Your task to perform on an android device: Search for the best vacuum on Walmart Image 0: 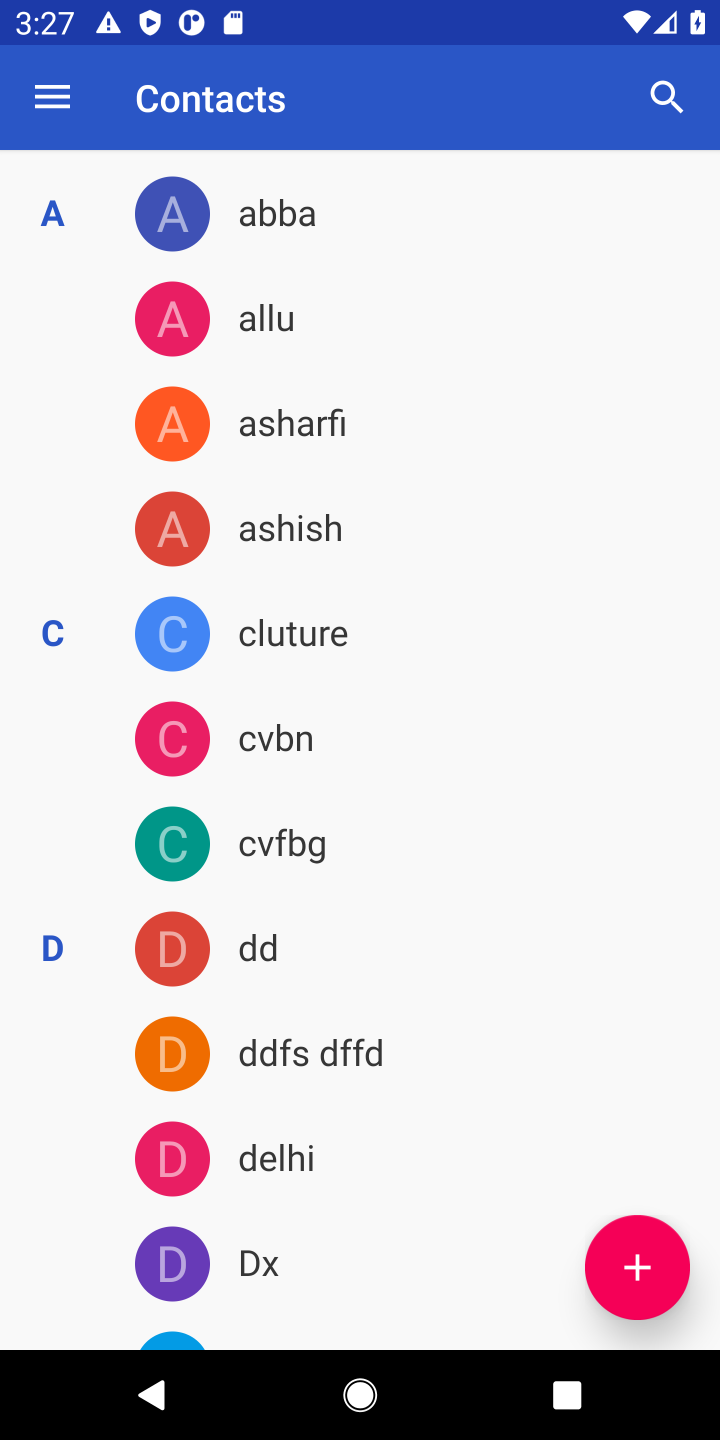
Step 0: press home button
Your task to perform on an android device: Search for the best vacuum on Walmart Image 1: 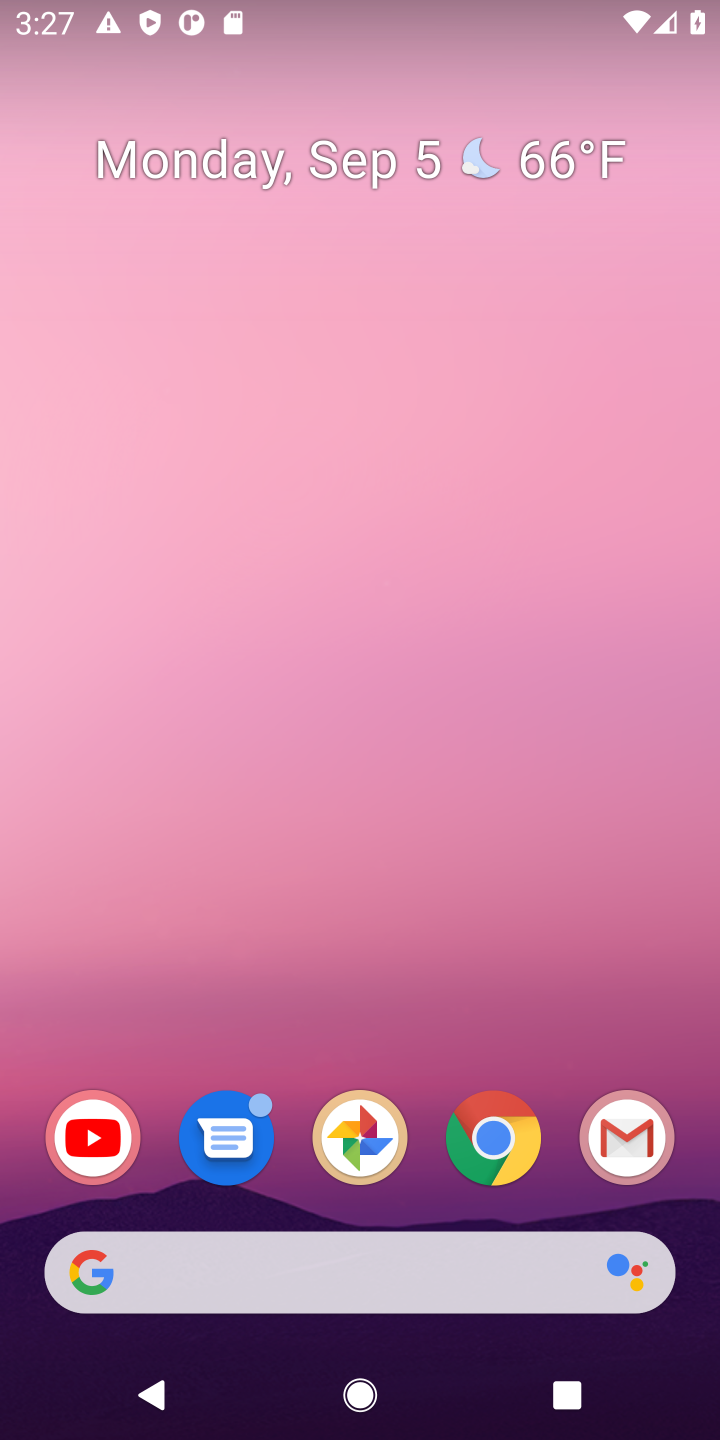
Step 1: click (499, 1144)
Your task to perform on an android device: Search for the best vacuum on Walmart Image 2: 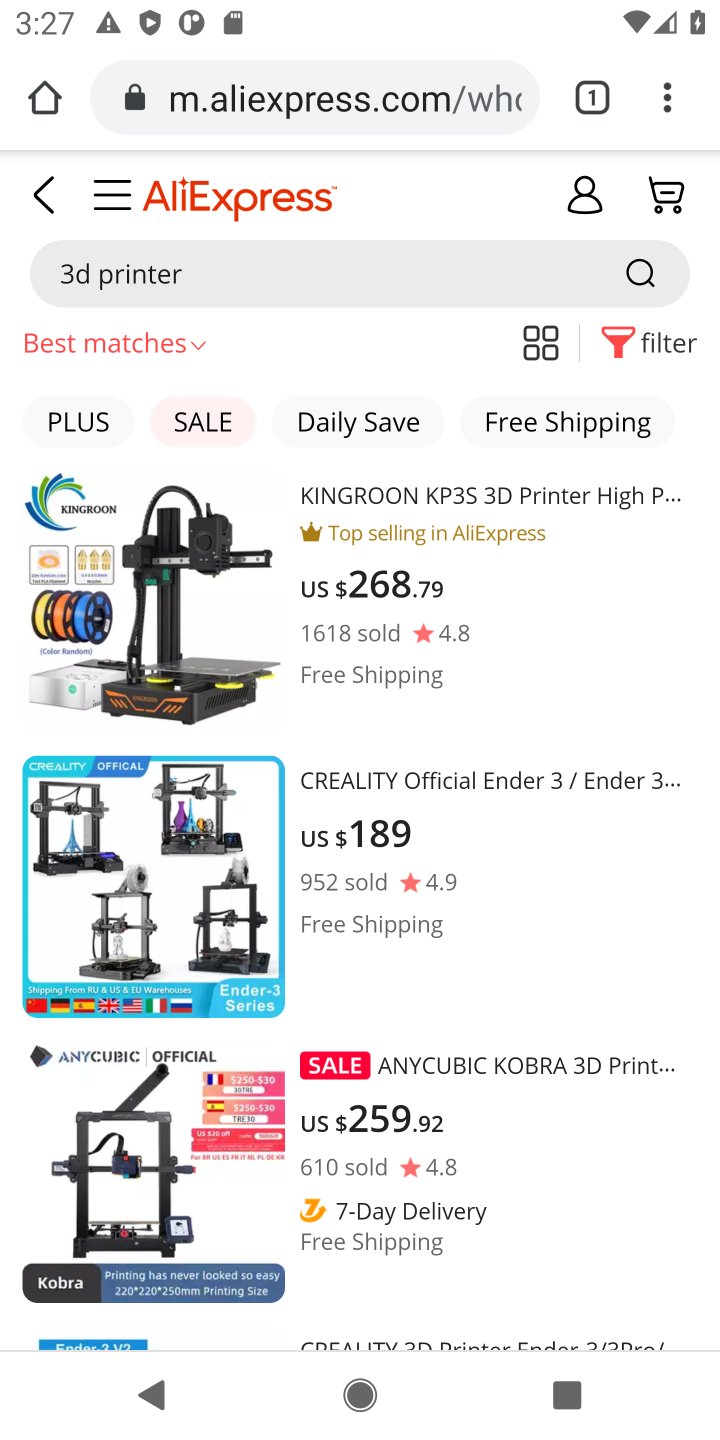
Step 2: click (371, 114)
Your task to perform on an android device: Search for the best vacuum on Walmart Image 3: 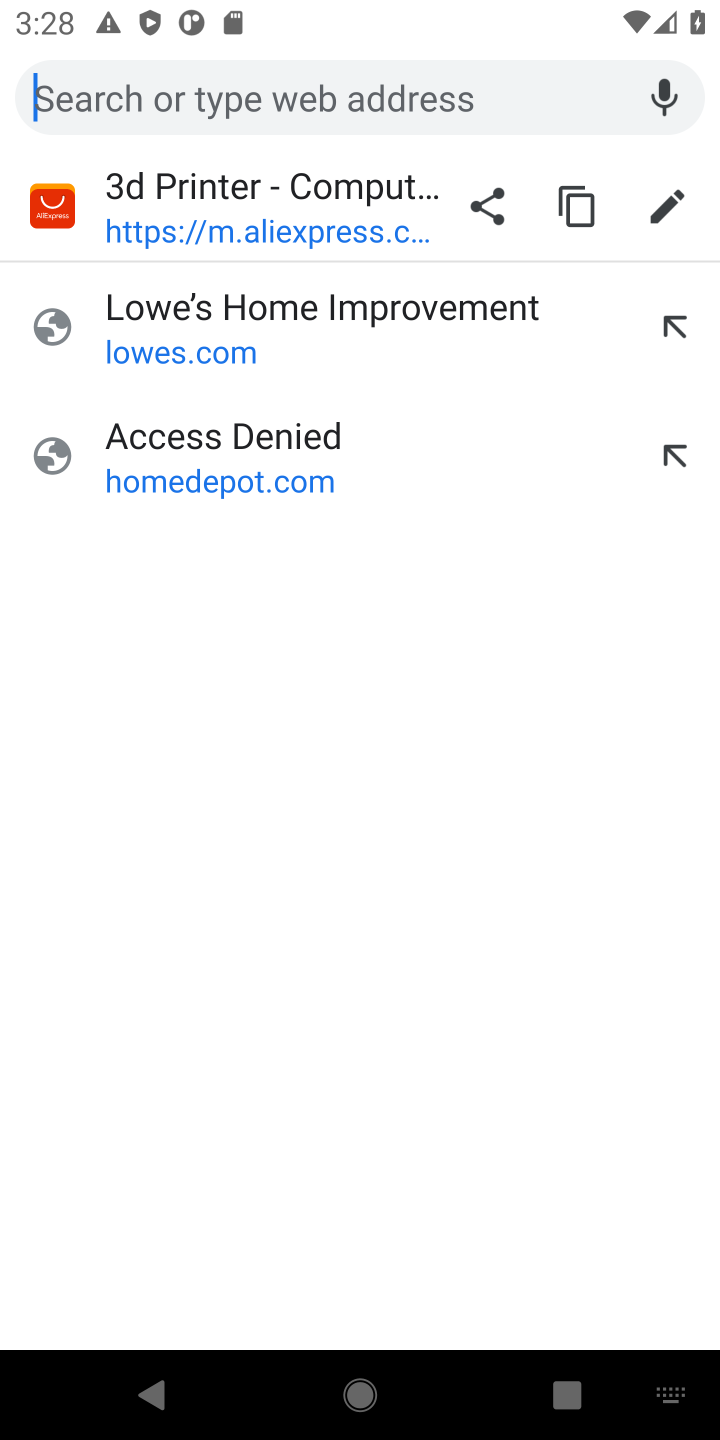
Step 3: type "walmart"
Your task to perform on an android device: Search for the best vacuum on Walmart Image 4: 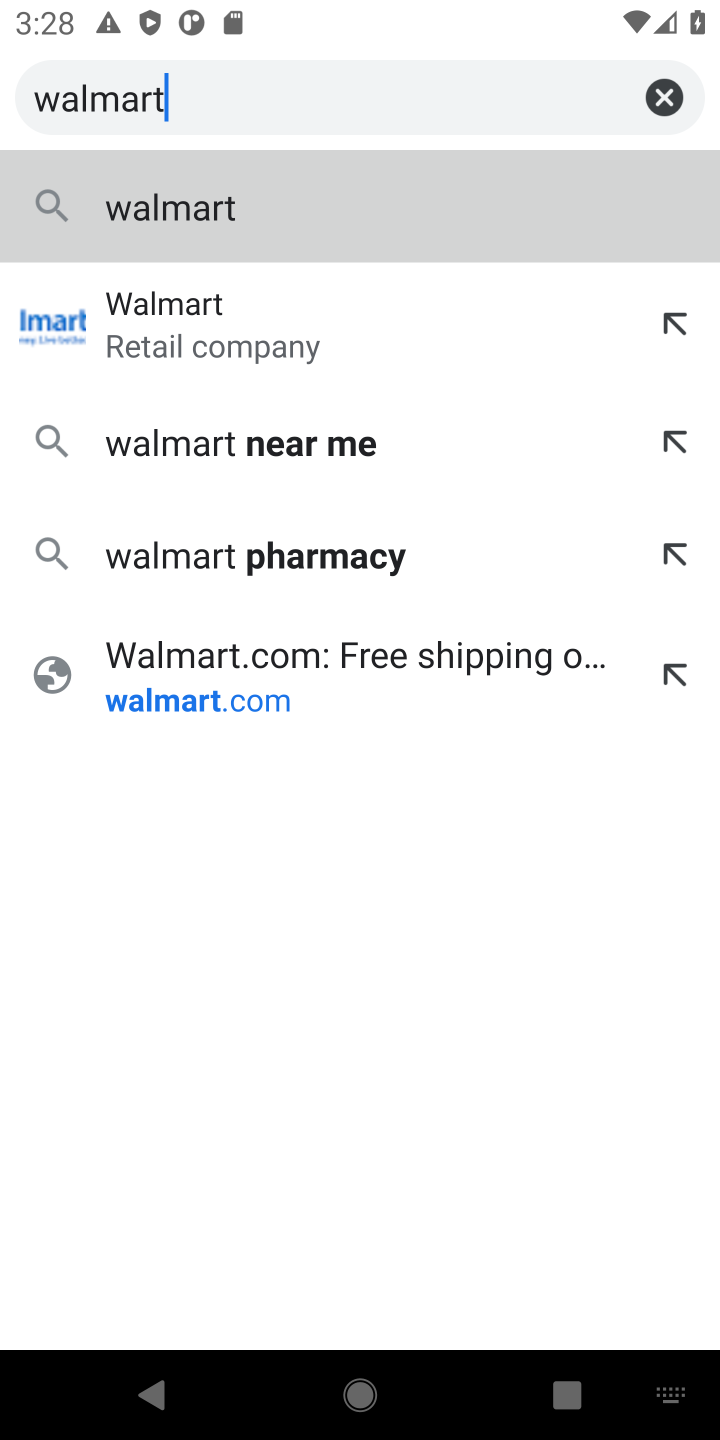
Step 4: click (344, 657)
Your task to perform on an android device: Search for the best vacuum on Walmart Image 5: 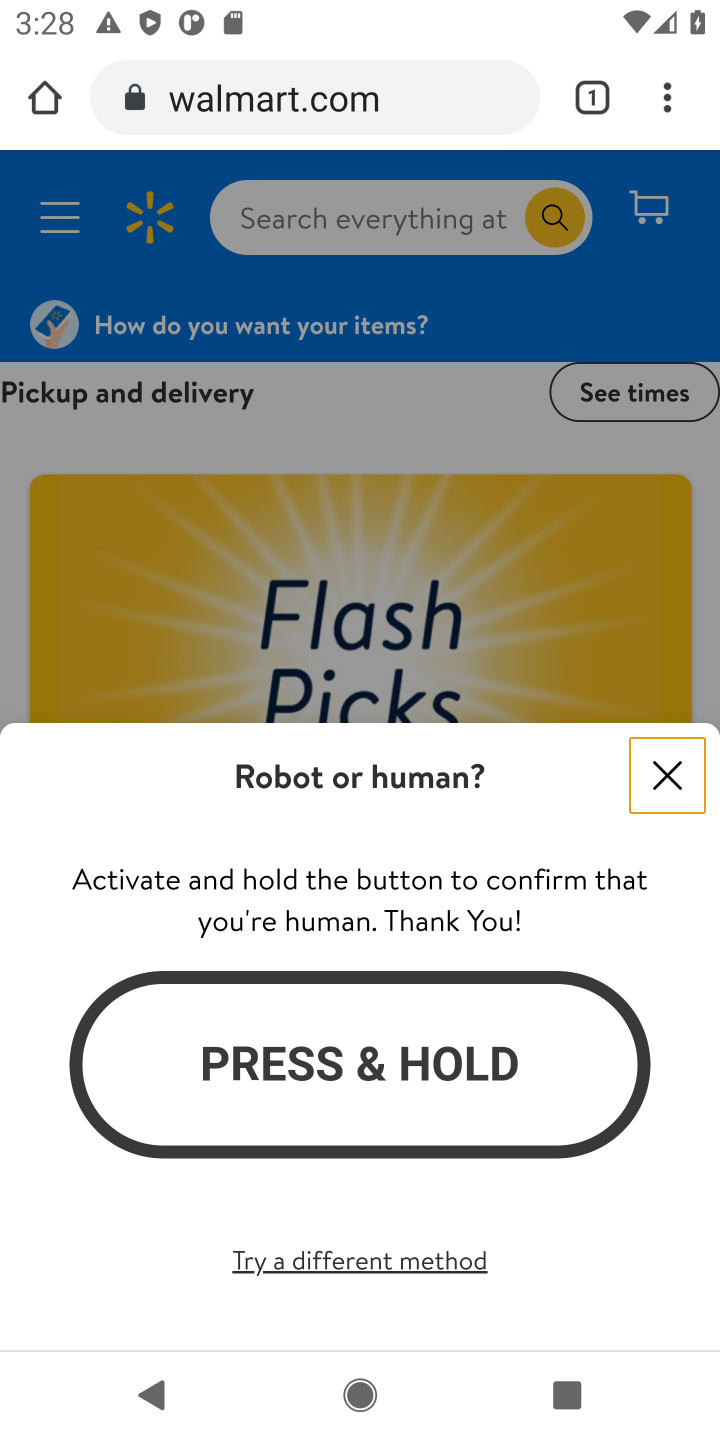
Step 5: click (683, 782)
Your task to perform on an android device: Search for the best vacuum on Walmart Image 6: 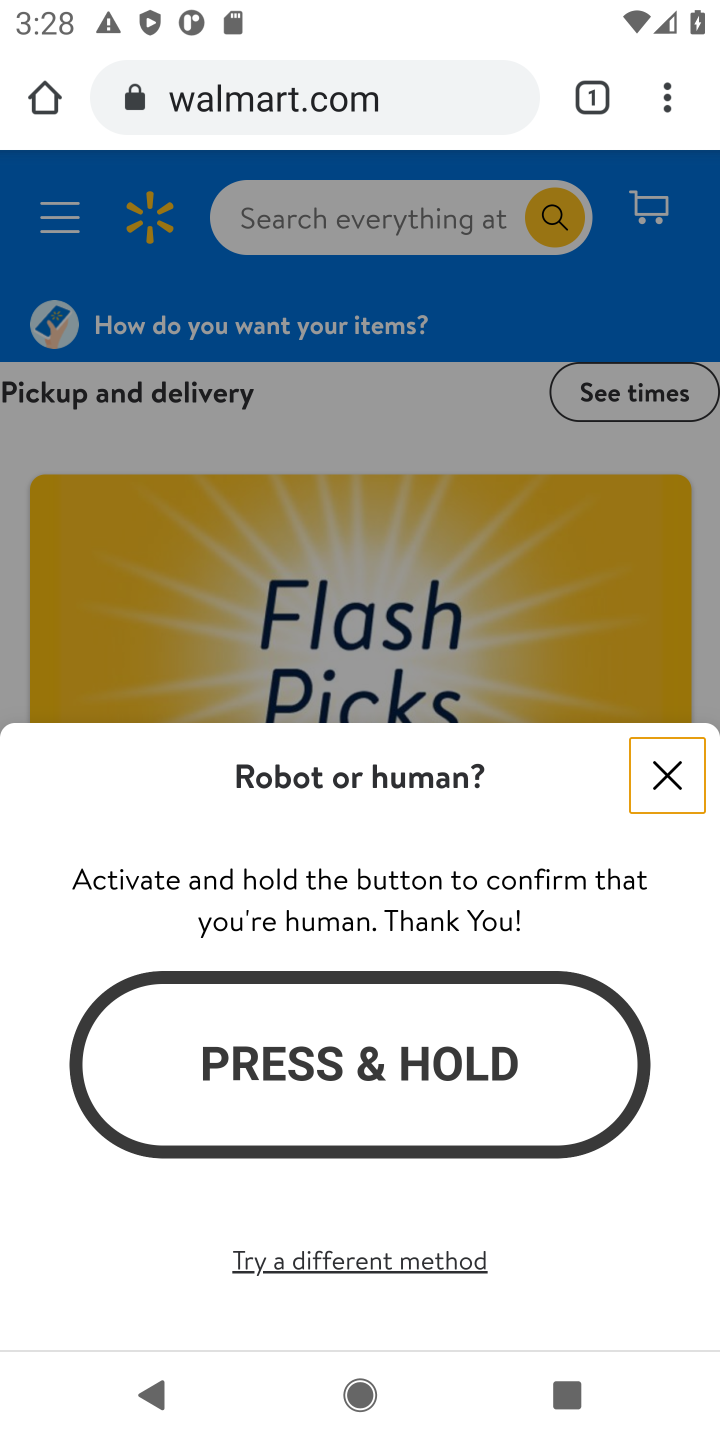
Step 6: click (666, 782)
Your task to perform on an android device: Search for the best vacuum on Walmart Image 7: 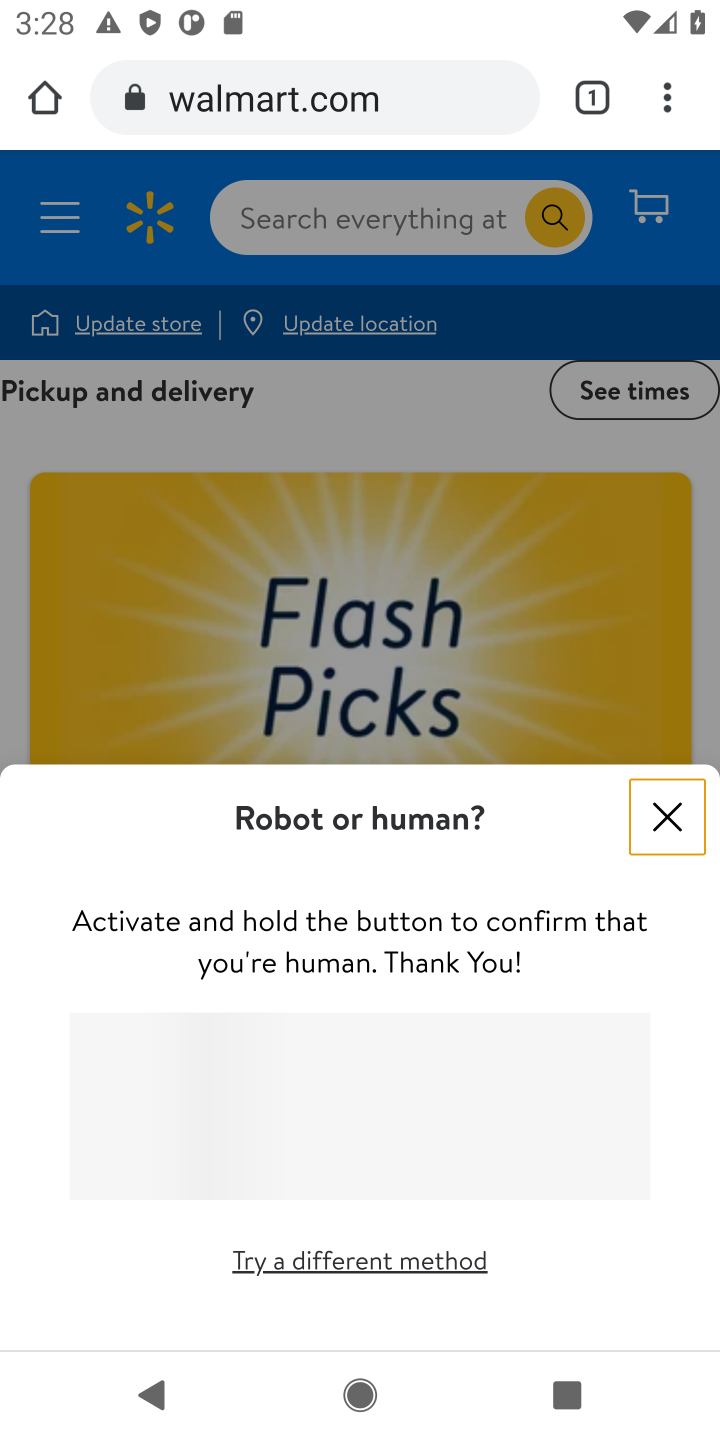
Step 7: click (368, 204)
Your task to perform on an android device: Search for the best vacuum on Walmart Image 8: 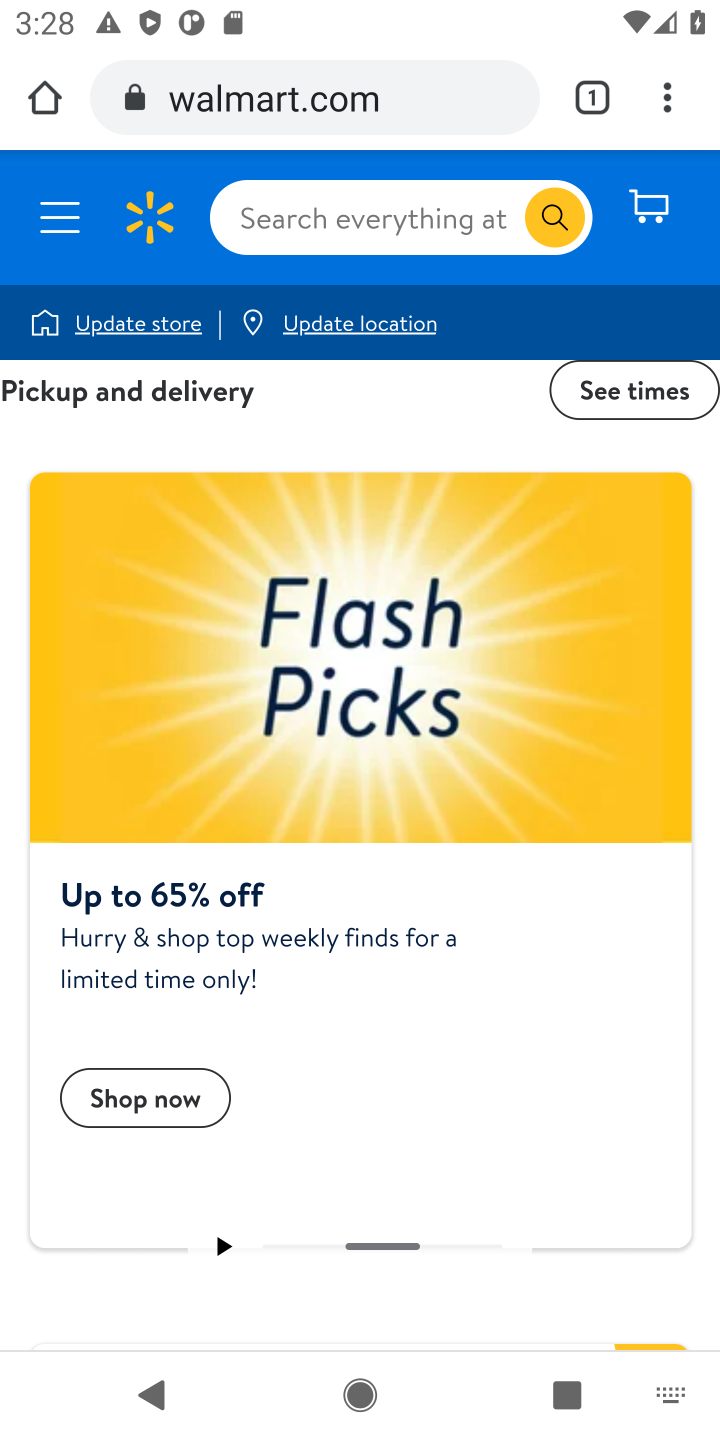
Step 8: click (368, 204)
Your task to perform on an android device: Search for the best vacuum on Walmart Image 9: 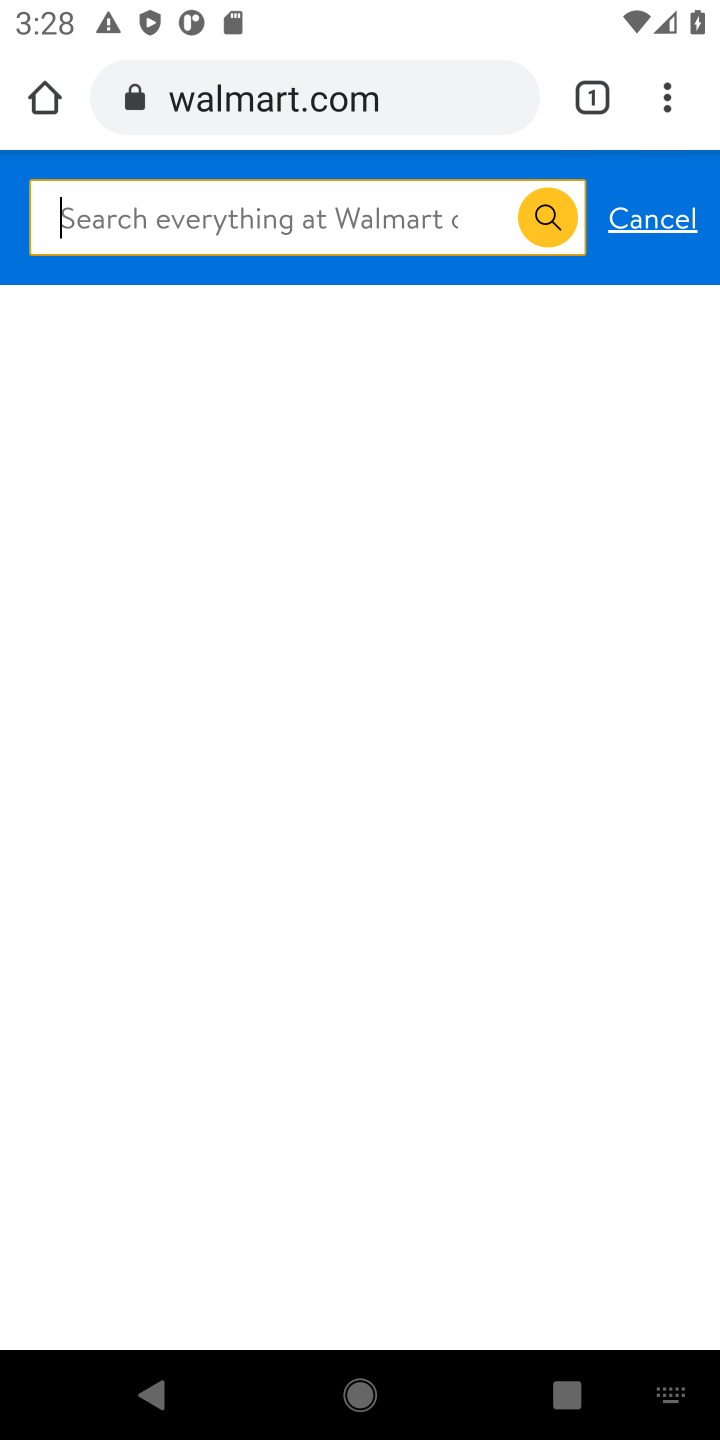
Step 9: type ""
Your task to perform on an android device: Search for the best vacuum on Walmart Image 10: 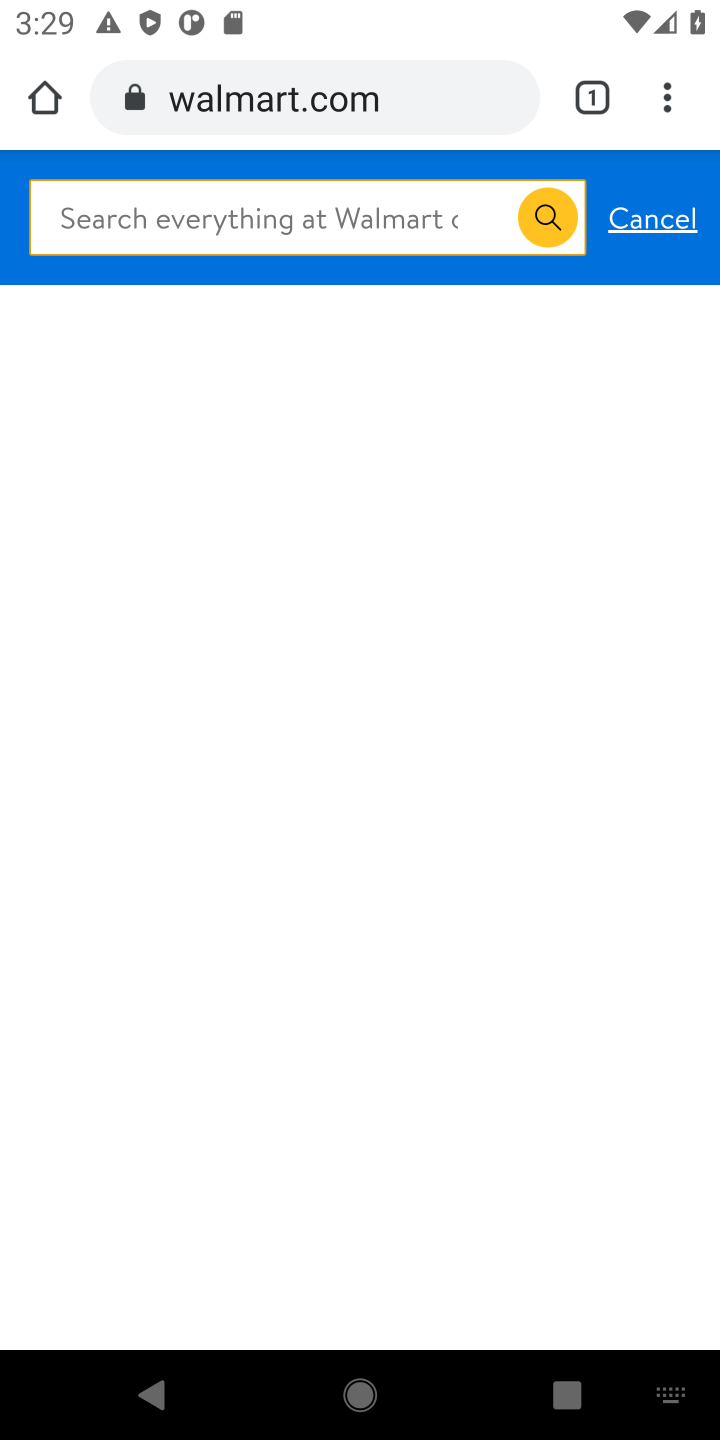
Step 10: type "best vacuum"
Your task to perform on an android device: Search for the best vacuum on Walmart Image 11: 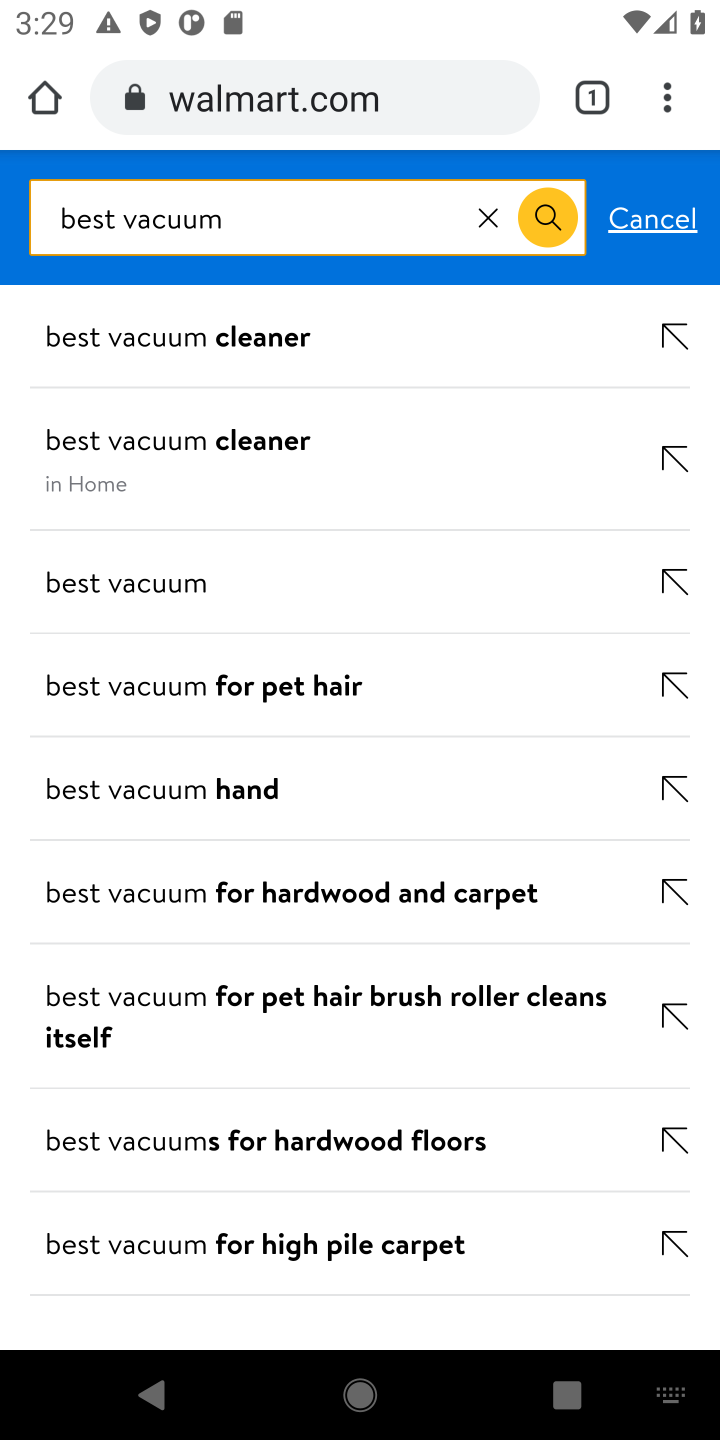
Step 11: click (542, 224)
Your task to perform on an android device: Search for the best vacuum on Walmart Image 12: 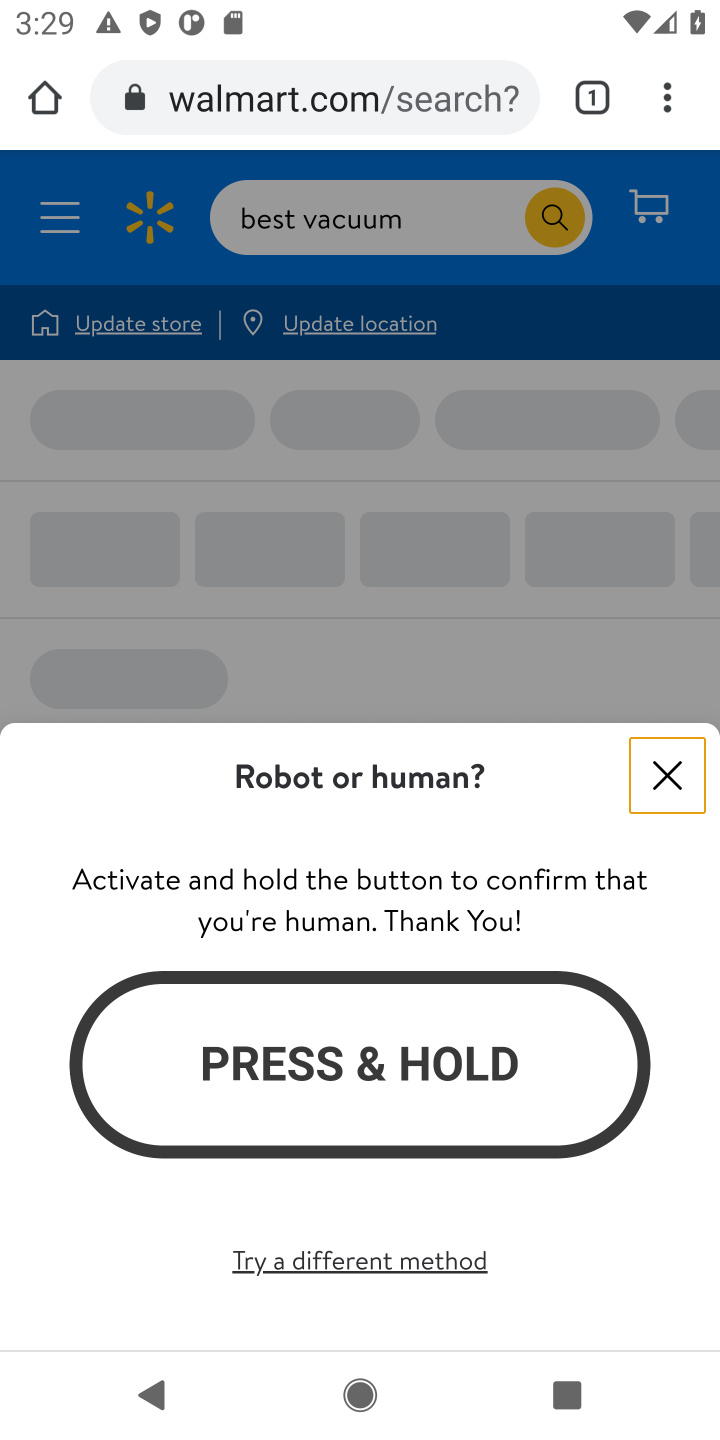
Step 12: click (668, 768)
Your task to perform on an android device: Search for the best vacuum on Walmart Image 13: 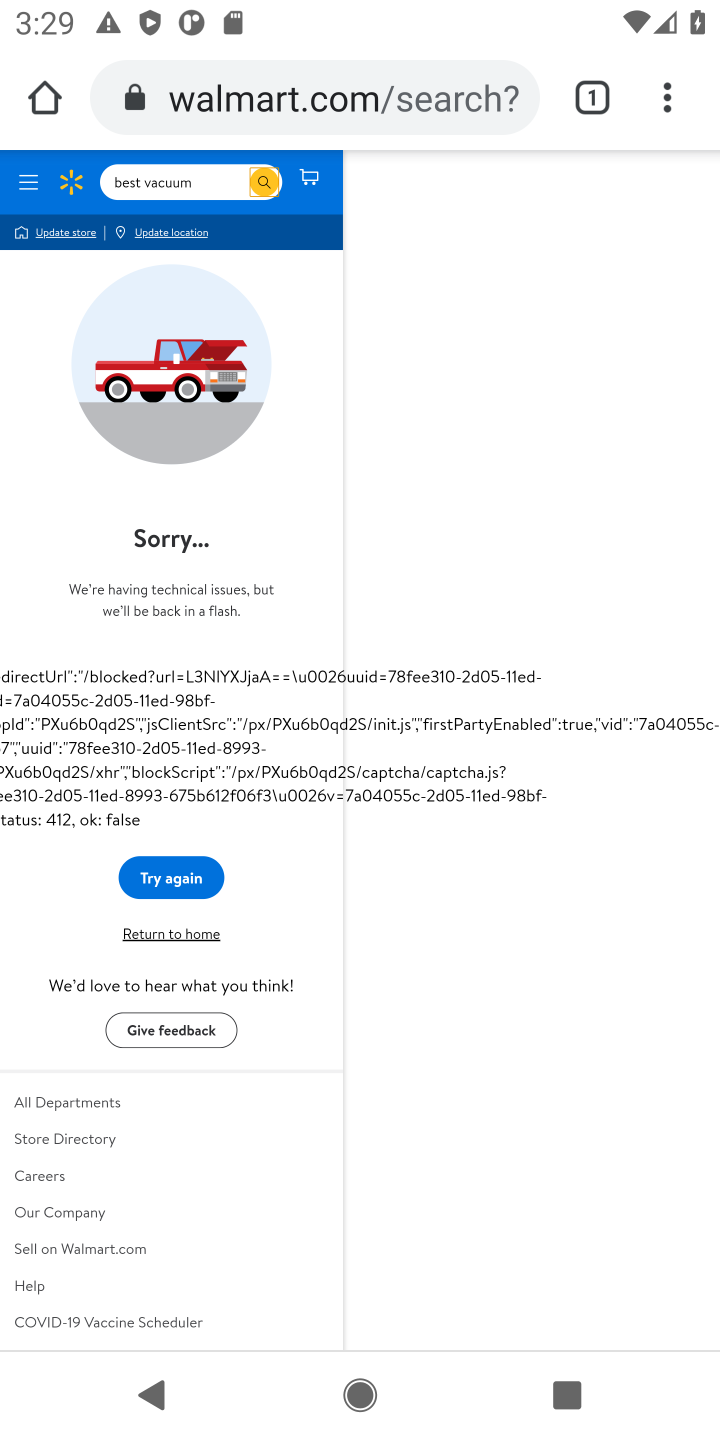
Step 13: task complete